Your task to perform on an android device: check data usage Image 0: 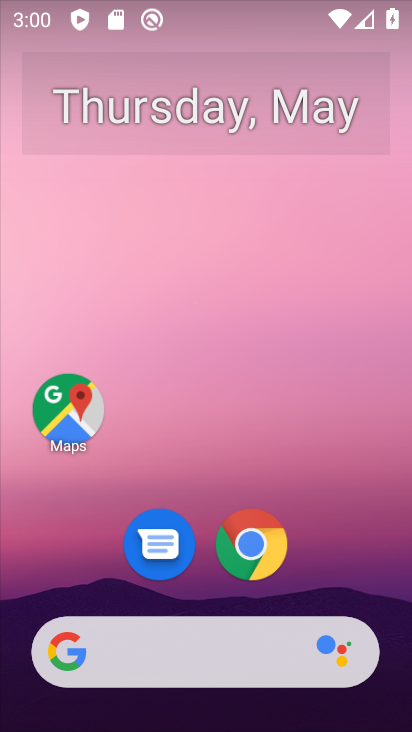
Step 0: drag from (199, 591) to (195, 149)
Your task to perform on an android device: check data usage Image 1: 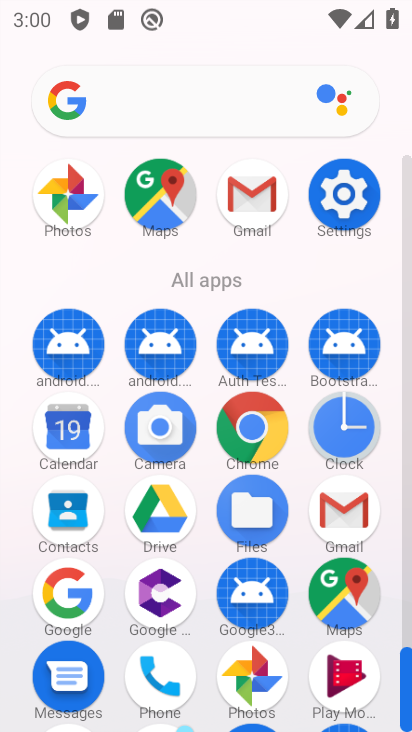
Step 1: click (342, 219)
Your task to perform on an android device: check data usage Image 2: 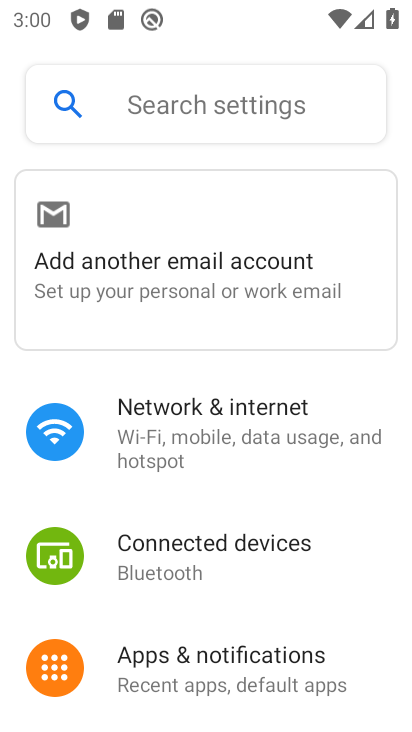
Step 2: drag from (223, 512) to (254, 210)
Your task to perform on an android device: check data usage Image 3: 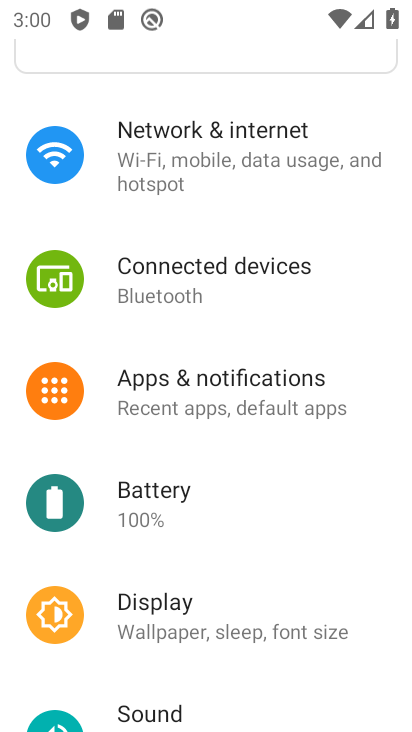
Step 3: drag from (212, 547) to (210, 364)
Your task to perform on an android device: check data usage Image 4: 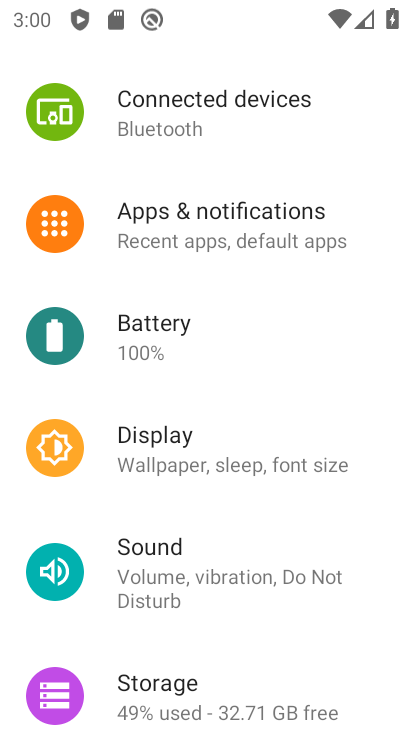
Step 4: drag from (219, 239) to (232, 441)
Your task to perform on an android device: check data usage Image 5: 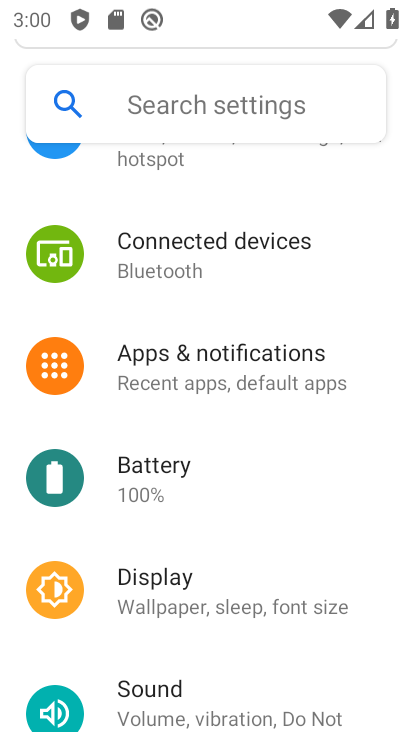
Step 5: click (186, 167)
Your task to perform on an android device: check data usage Image 6: 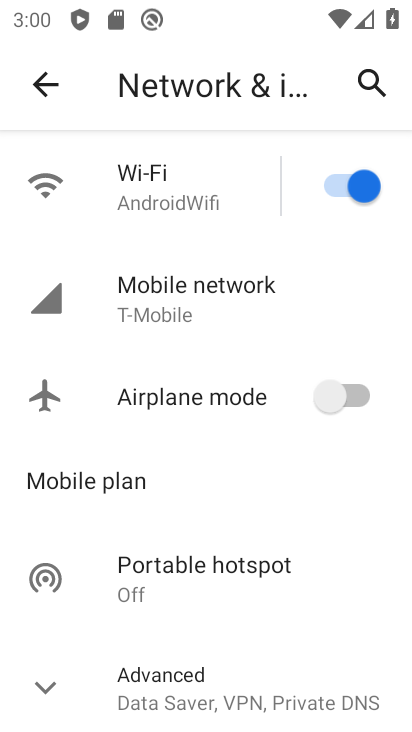
Step 6: click (219, 317)
Your task to perform on an android device: check data usage Image 7: 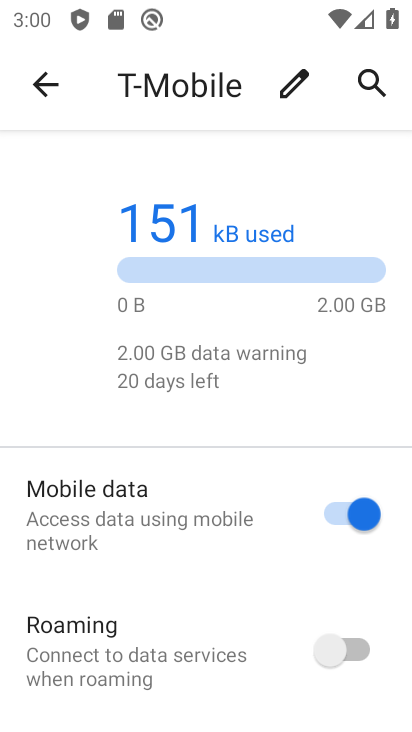
Step 7: drag from (256, 521) to (272, 296)
Your task to perform on an android device: check data usage Image 8: 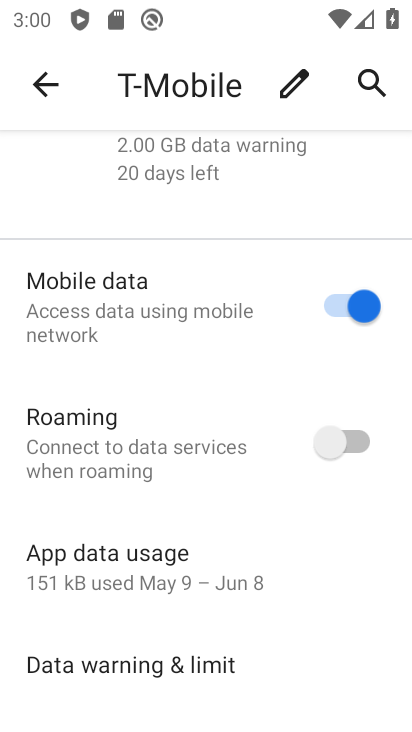
Step 8: drag from (223, 546) to (235, 363)
Your task to perform on an android device: check data usage Image 9: 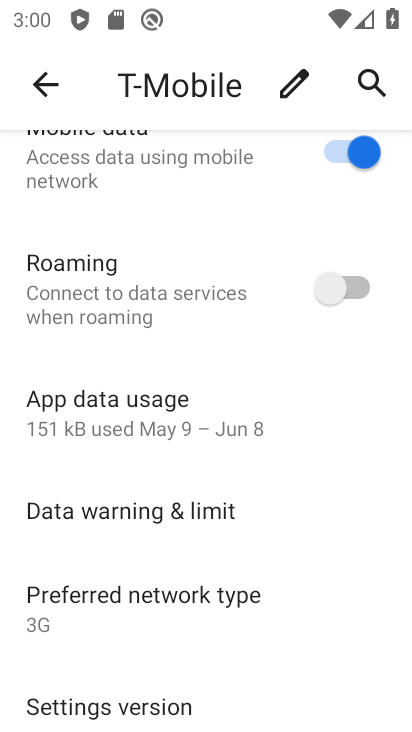
Step 9: click (203, 425)
Your task to perform on an android device: check data usage Image 10: 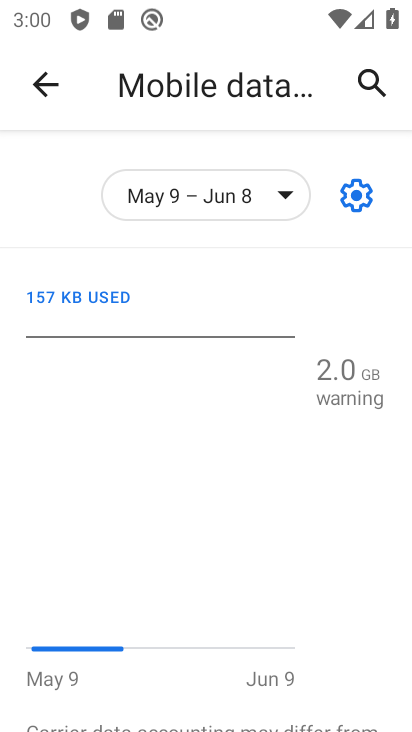
Step 10: task complete